Your task to perform on an android device: change the clock display to show seconds Image 0: 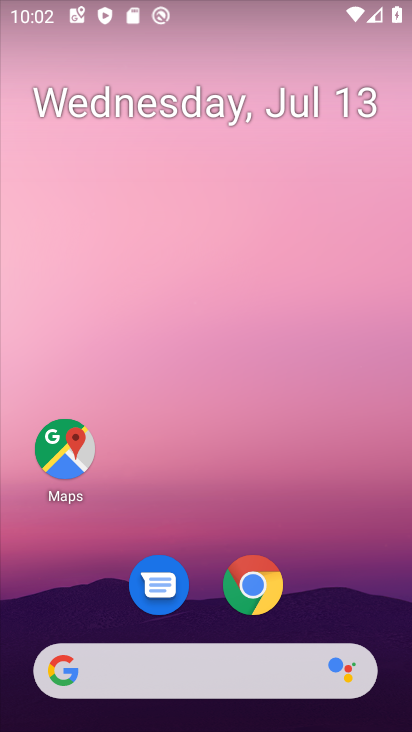
Step 0: drag from (309, 560) to (355, 54)
Your task to perform on an android device: change the clock display to show seconds Image 1: 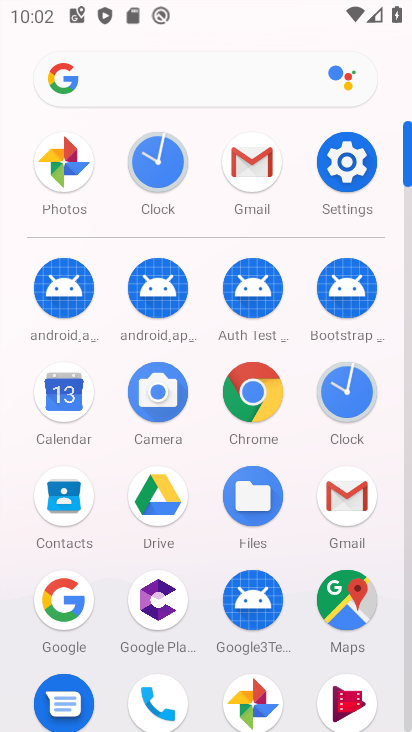
Step 1: click (335, 396)
Your task to perform on an android device: change the clock display to show seconds Image 2: 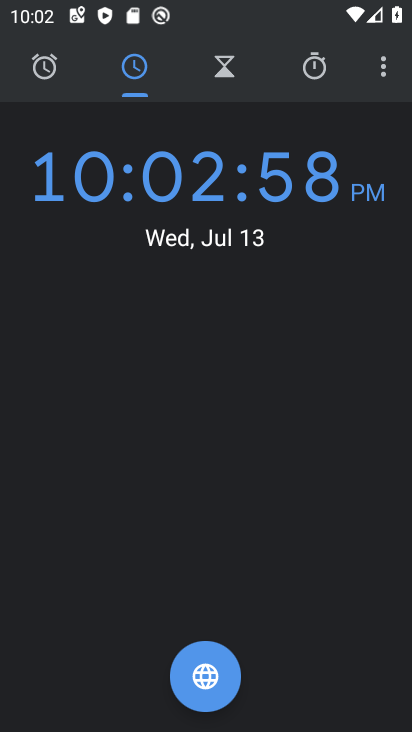
Step 2: task complete